Your task to perform on an android device: Play the last video I watched on Youtube Image 0: 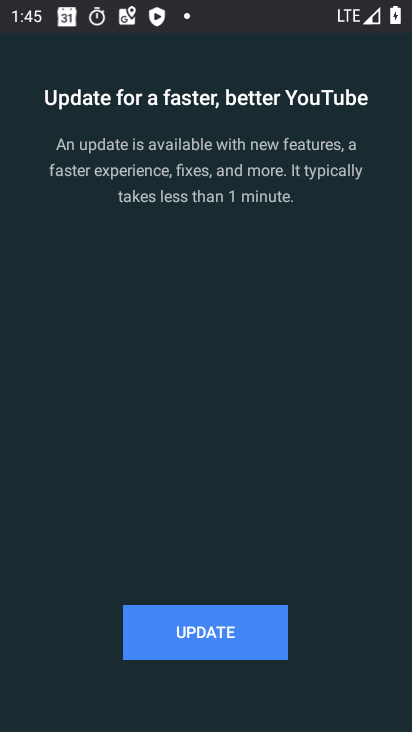
Step 0: click (226, 633)
Your task to perform on an android device: Play the last video I watched on Youtube Image 1: 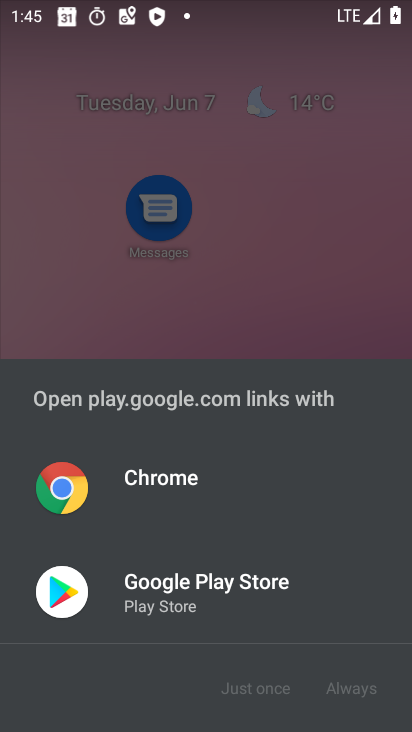
Step 1: click (175, 606)
Your task to perform on an android device: Play the last video I watched on Youtube Image 2: 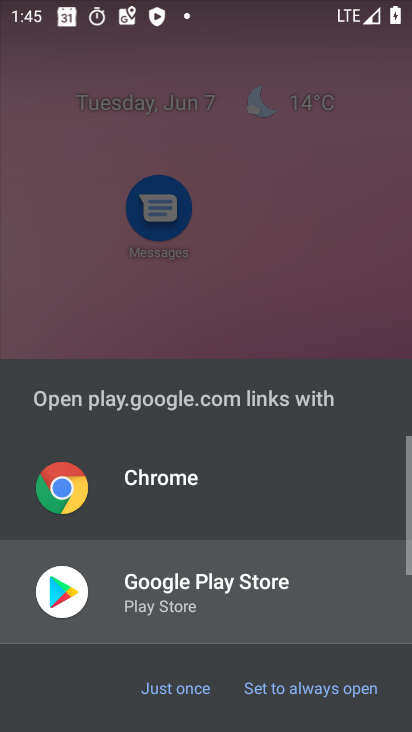
Step 2: click (168, 684)
Your task to perform on an android device: Play the last video I watched on Youtube Image 3: 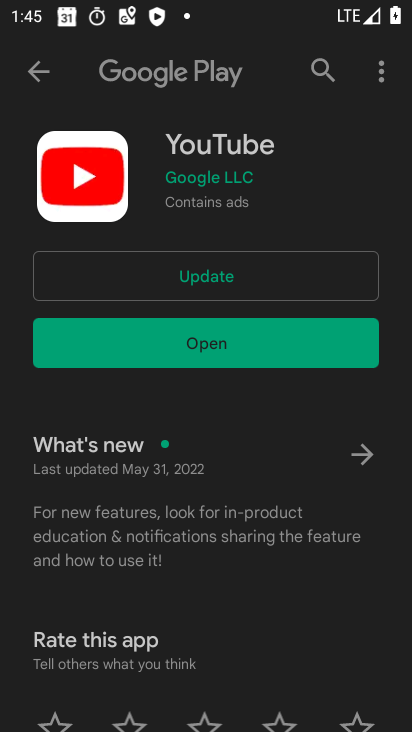
Step 3: click (214, 276)
Your task to perform on an android device: Play the last video I watched on Youtube Image 4: 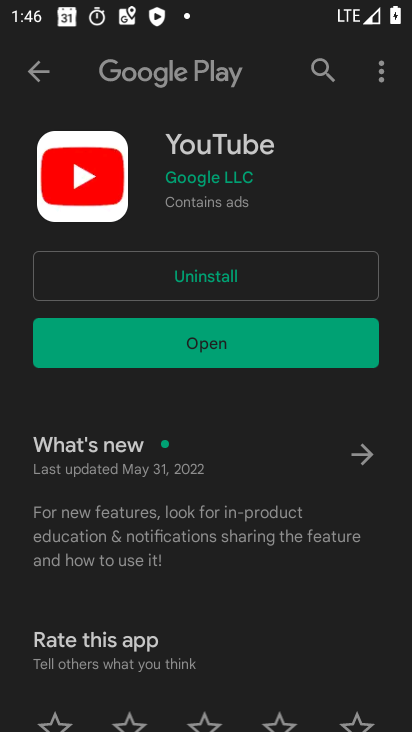
Step 4: click (215, 348)
Your task to perform on an android device: Play the last video I watched on Youtube Image 5: 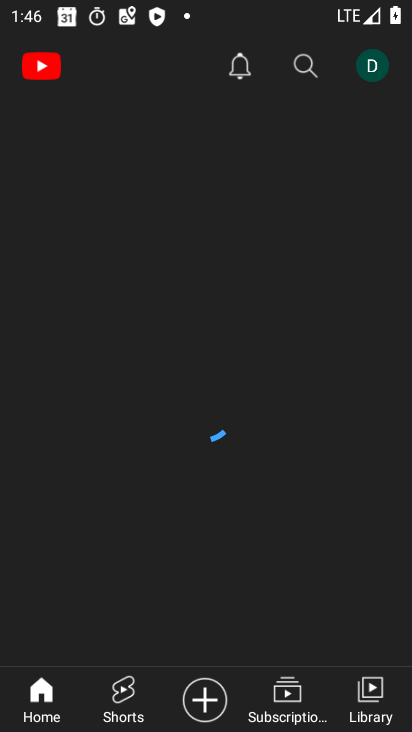
Step 5: click (359, 692)
Your task to perform on an android device: Play the last video I watched on Youtube Image 6: 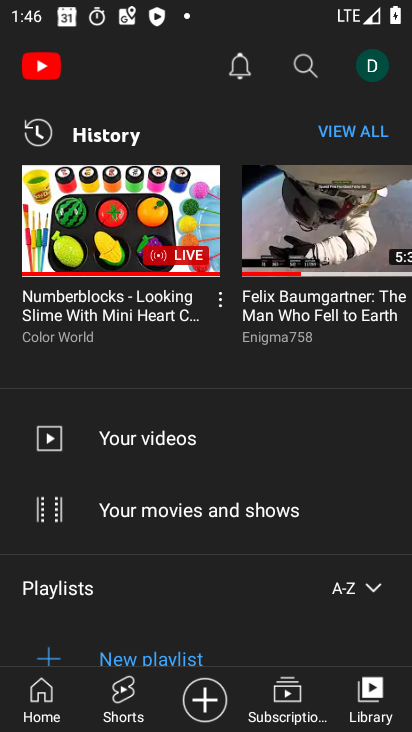
Step 6: click (87, 211)
Your task to perform on an android device: Play the last video I watched on Youtube Image 7: 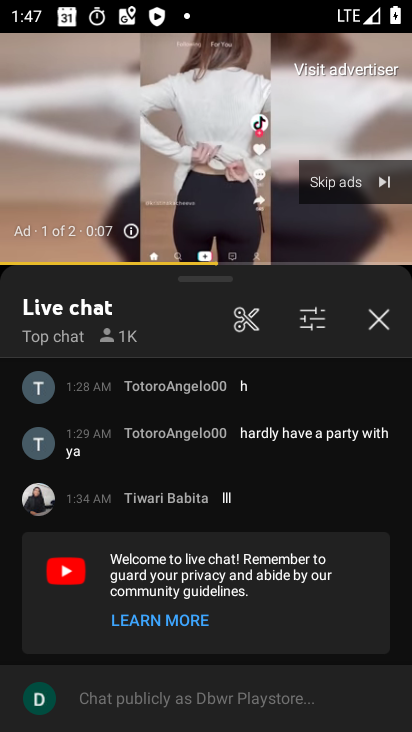
Step 7: click (359, 178)
Your task to perform on an android device: Play the last video I watched on Youtube Image 8: 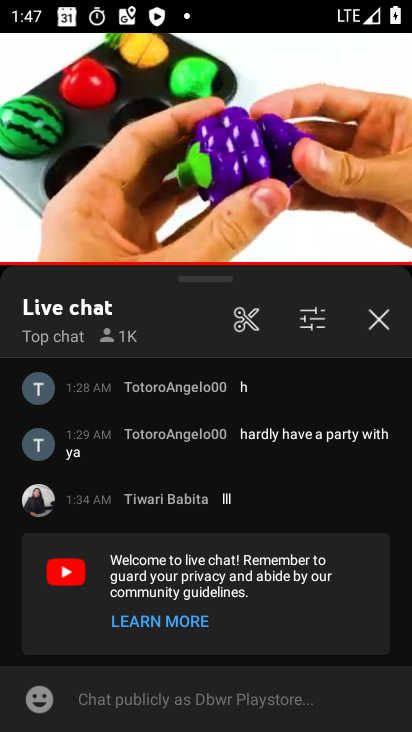
Step 8: task complete